Your task to perform on an android device: turn on wifi Image 0: 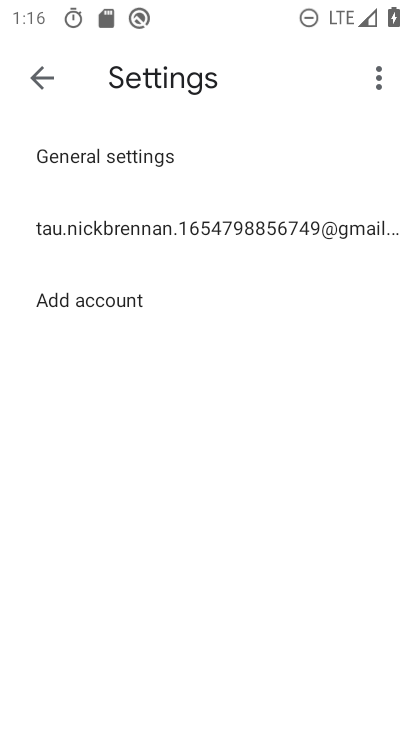
Step 0: press home button
Your task to perform on an android device: turn on wifi Image 1: 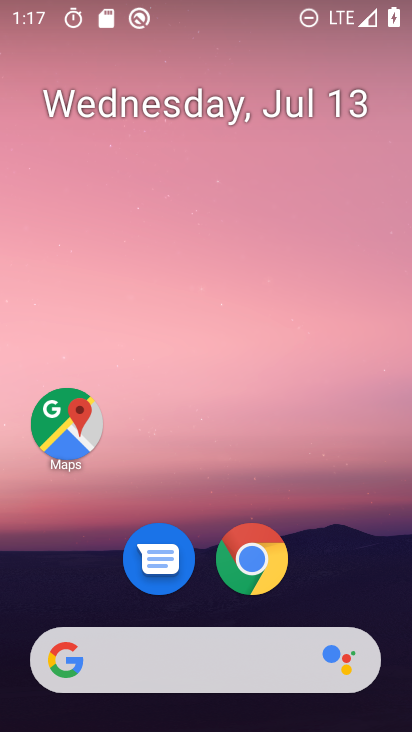
Step 1: drag from (269, 637) to (270, 217)
Your task to perform on an android device: turn on wifi Image 2: 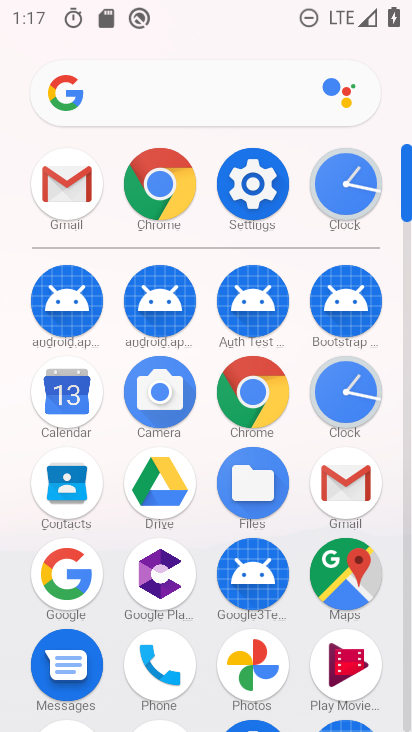
Step 2: click (274, 205)
Your task to perform on an android device: turn on wifi Image 3: 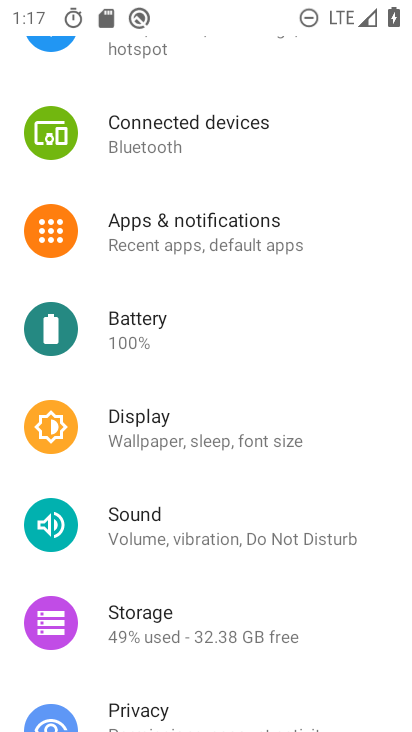
Step 3: drag from (274, 205) to (220, 533)
Your task to perform on an android device: turn on wifi Image 4: 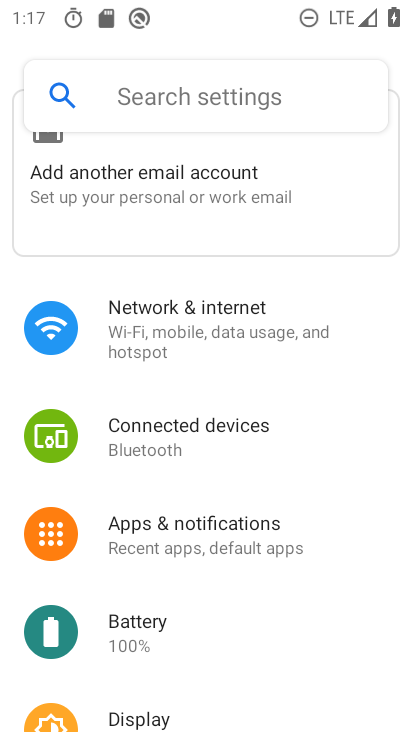
Step 4: click (229, 339)
Your task to perform on an android device: turn on wifi Image 5: 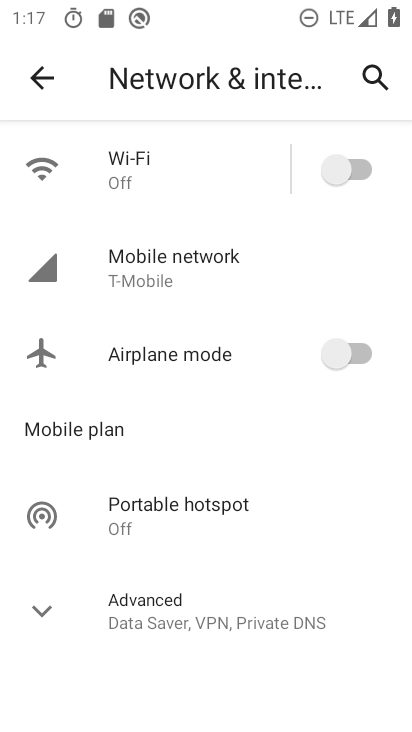
Step 5: click (353, 172)
Your task to perform on an android device: turn on wifi Image 6: 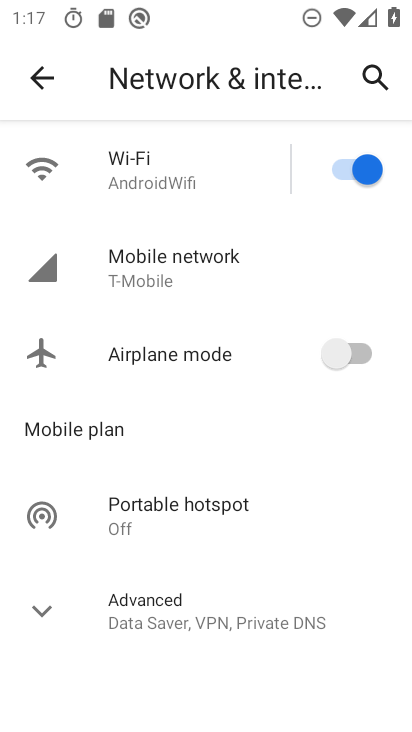
Step 6: task complete